Your task to perform on an android device: Is it going to rain tomorrow? Image 0: 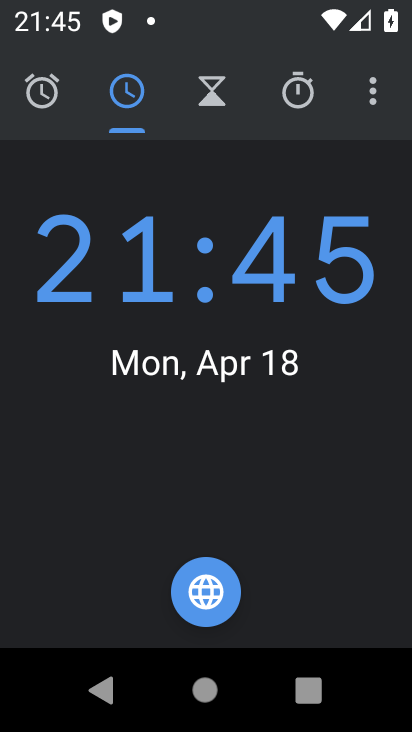
Step 0: press home button
Your task to perform on an android device: Is it going to rain tomorrow? Image 1: 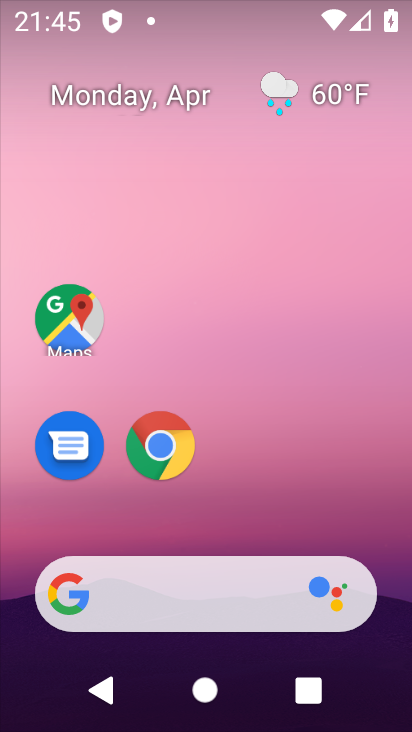
Step 1: click (296, 86)
Your task to perform on an android device: Is it going to rain tomorrow? Image 2: 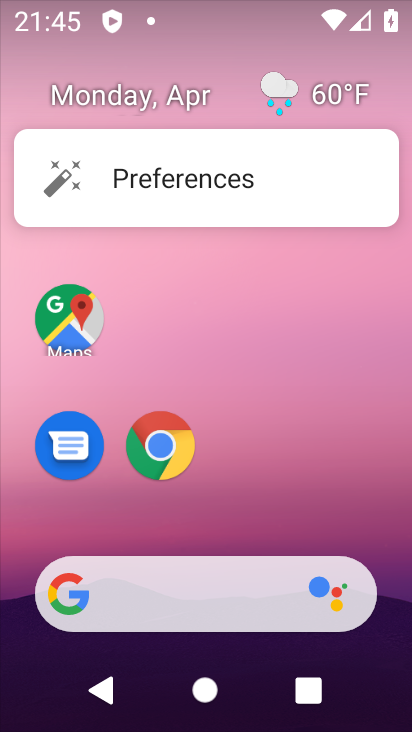
Step 2: click (322, 92)
Your task to perform on an android device: Is it going to rain tomorrow? Image 3: 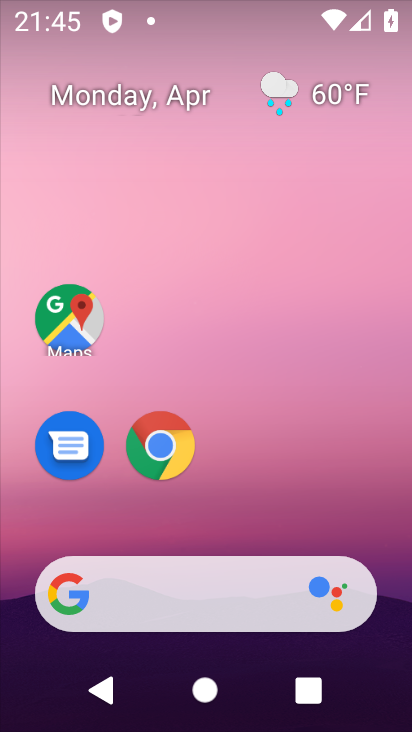
Step 3: click (322, 92)
Your task to perform on an android device: Is it going to rain tomorrow? Image 4: 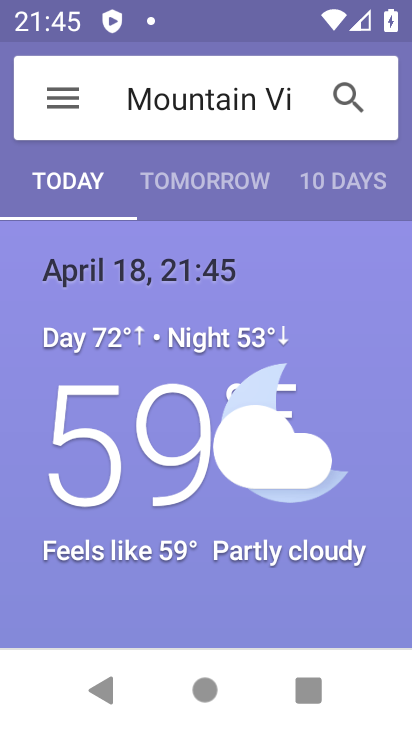
Step 4: click (242, 180)
Your task to perform on an android device: Is it going to rain tomorrow? Image 5: 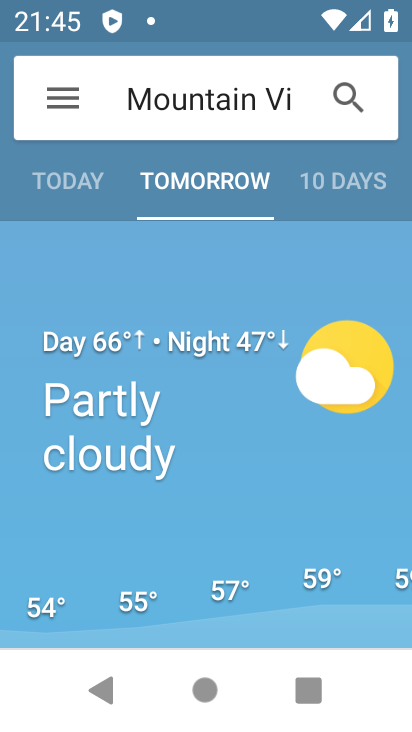
Step 5: task complete